Your task to perform on an android device: turn off location history Image 0: 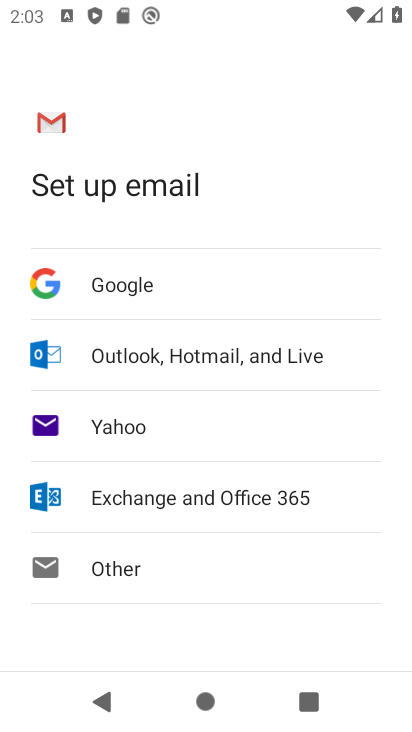
Step 0: press home button
Your task to perform on an android device: turn off location history Image 1: 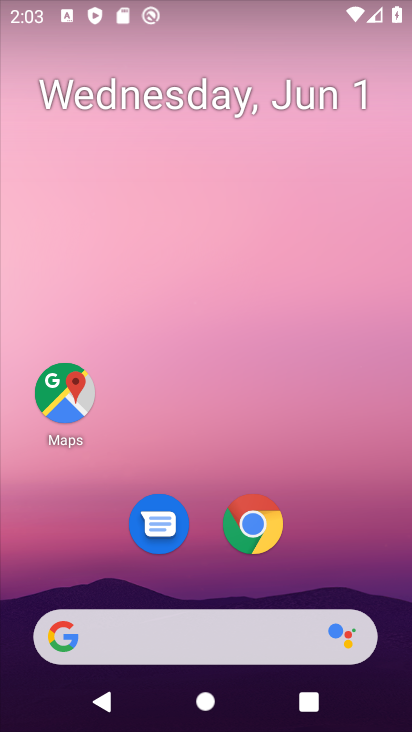
Step 1: drag from (298, 521) to (338, 24)
Your task to perform on an android device: turn off location history Image 2: 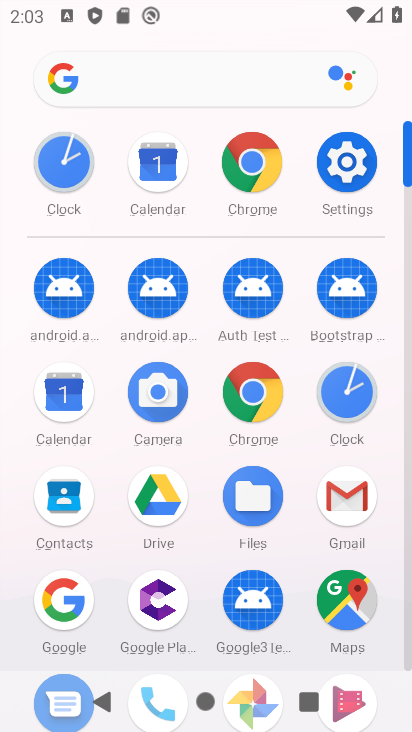
Step 2: click (346, 161)
Your task to perform on an android device: turn off location history Image 3: 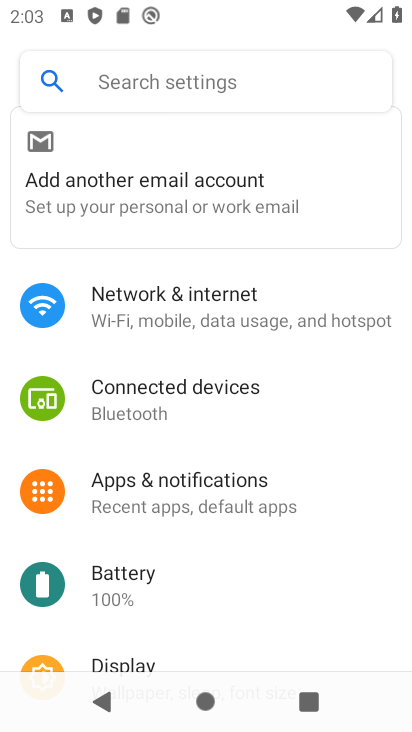
Step 3: drag from (275, 595) to (242, 130)
Your task to perform on an android device: turn off location history Image 4: 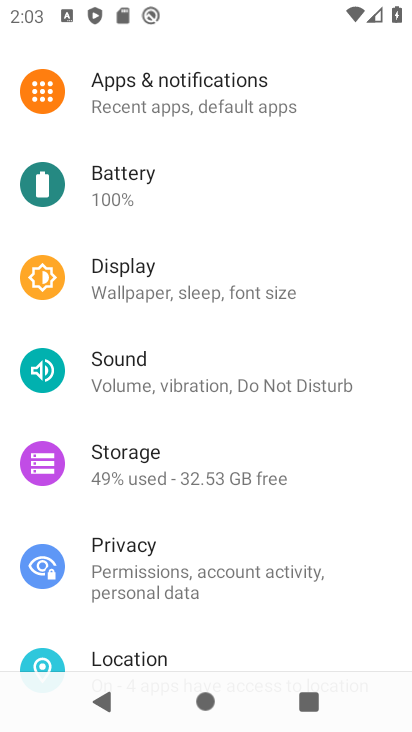
Step 4: drag from (256, 435) to (248, 178)
Your task to perform on an android device: turn off location history Image 5: 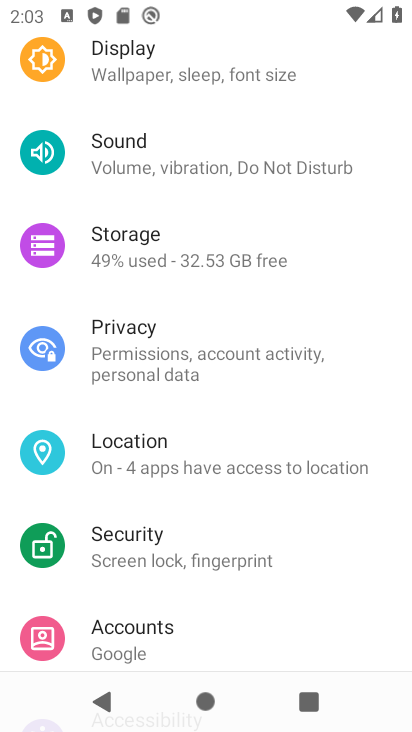
Step 5: click (226, 466)
Your task to perform on an android device: turn off location history Image 6: 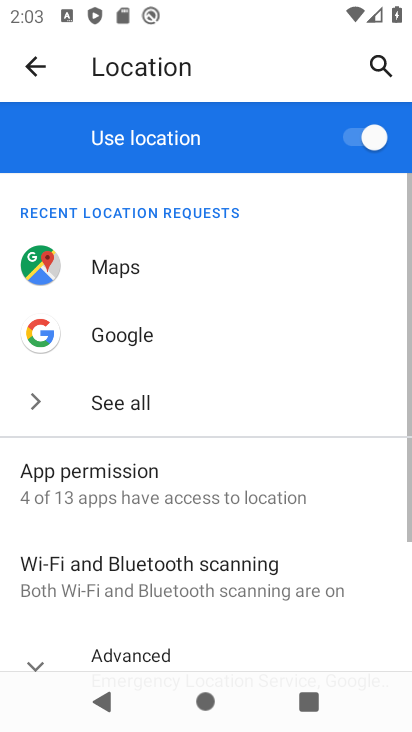
Step 6: drag from (242, 515) to (260, 287)
Your task to perform on an android device: turn off location history Image 7: 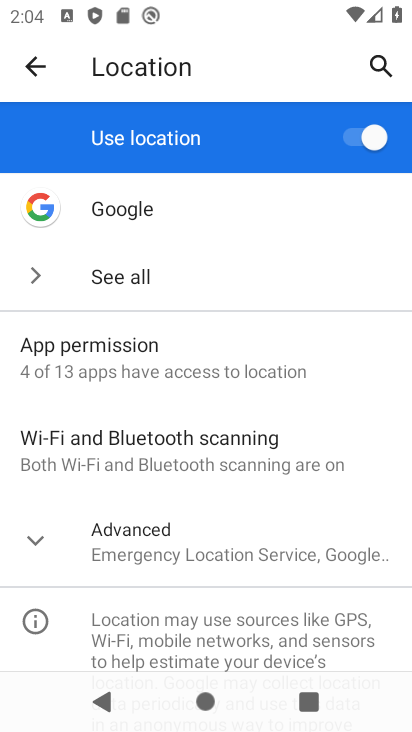
Step 7: click (25, 530)
Your task to perform on an android device: turn off location history Image 8: 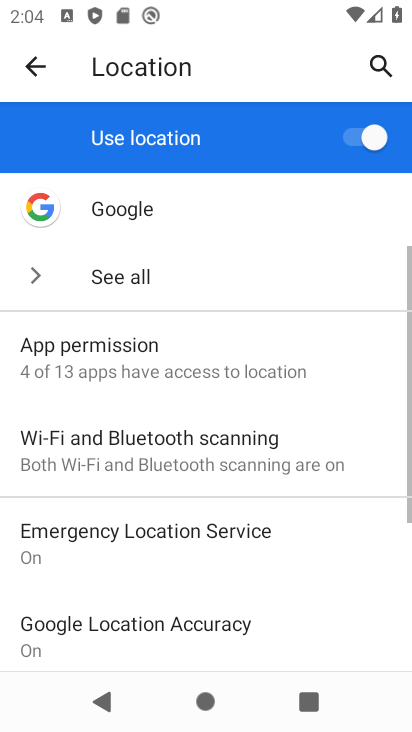
Step 8: drag from (248, 617) to (294, 354)
Your task to perform on an android device: turn off location history Image 9: 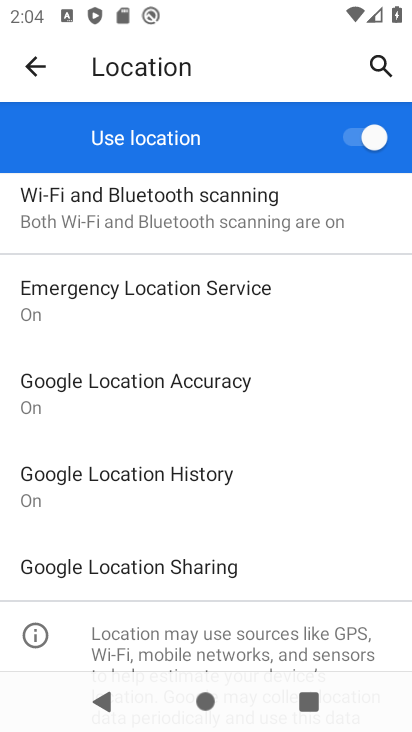
Step 9: click (194, 478)
Your task to perform on an android device: turn off location history Image 10: 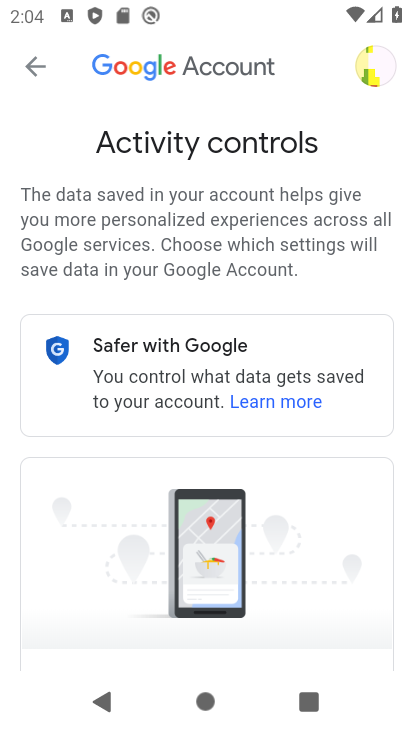
Step 10: drag from (273, 563) to (382, 249)
Your task to perform on an android device: turn off location history Image 11: 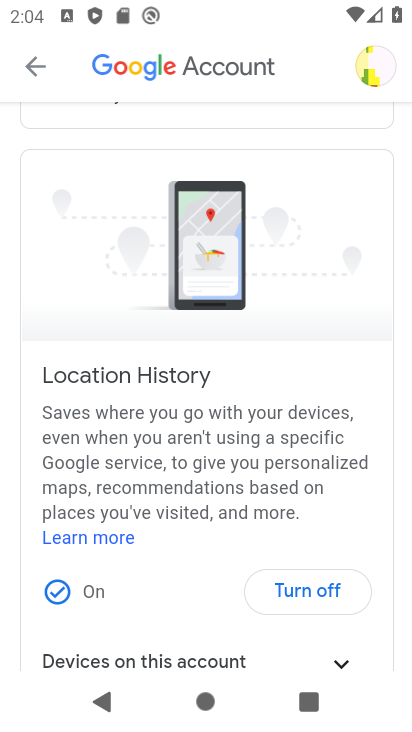
Step 11: click (331, 581)
Your task to perform on an android device: turn off location history Image 12: 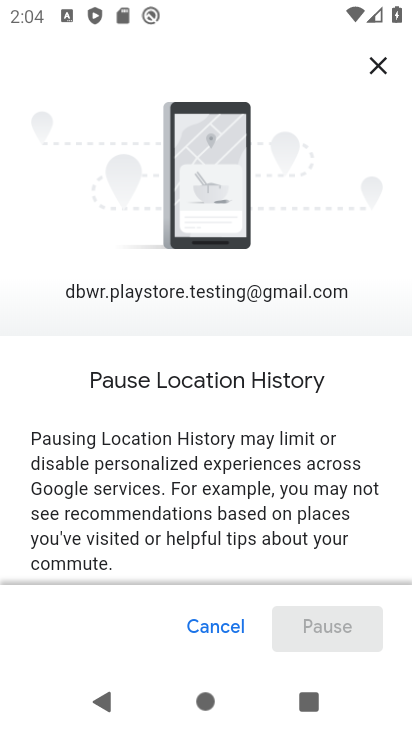
Step 12: drag from (276, 467) to (308, 9)
Your task to perform on an android device: turn off location history Image 13: 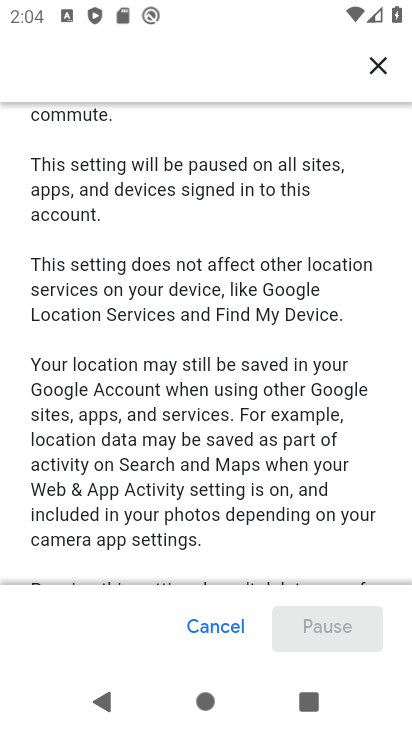
Step 13: drag from (273, 442) to (301, 16)
Your task to perform on an android device: turn off location history Image 14: 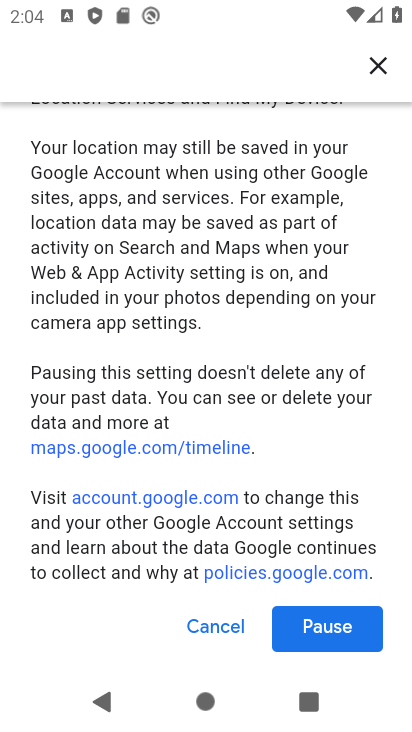
Step 14: click (307, 616)
Your task to perform on an android device: turn off location history Image 15: 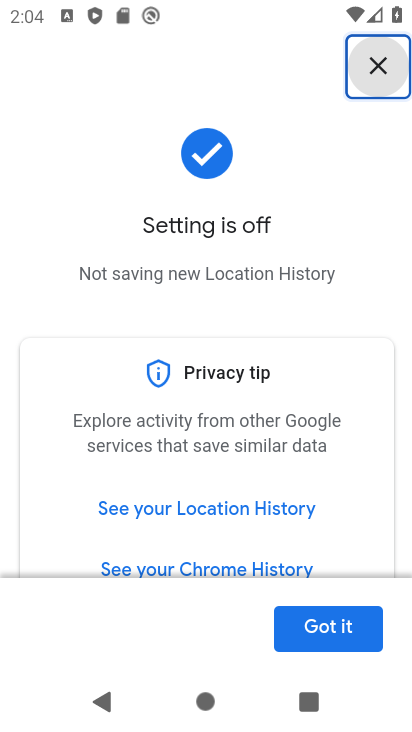
Step 15: click (314, 629)
Your task to perform on an android device: turn off location history Image 16: 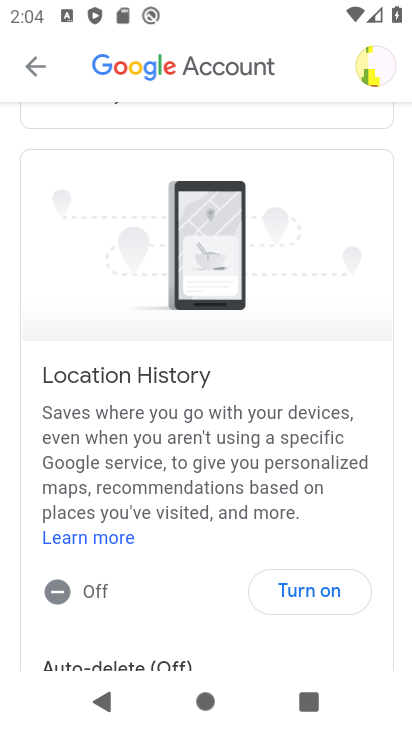
Step 16: task complete